Your task to perform on an android device: change alarm snooze length Image 0: 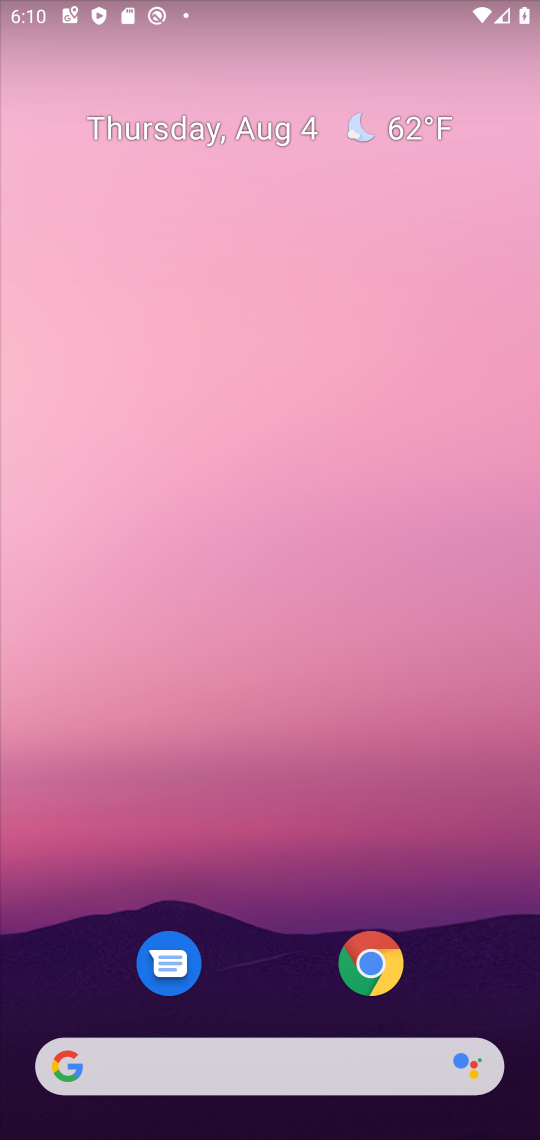
Step 0: drag from (303, 868) to (352, 51)
Your task to perform on an android device: change alarm snooze length Image 1: 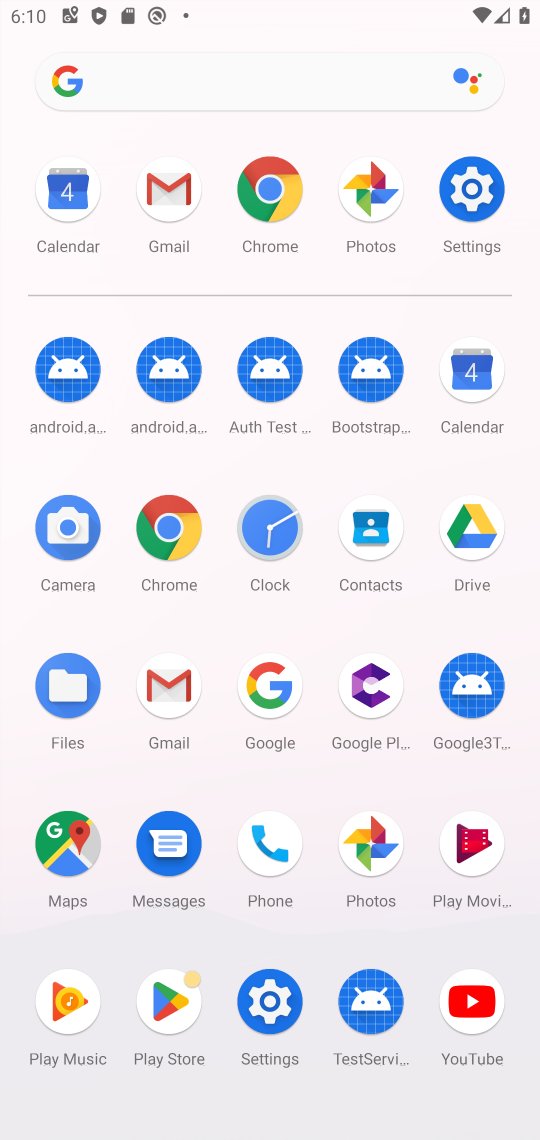
Step 1: click (273, 525)
Your task to perform on an android device: change alarm snooze length Image 2: 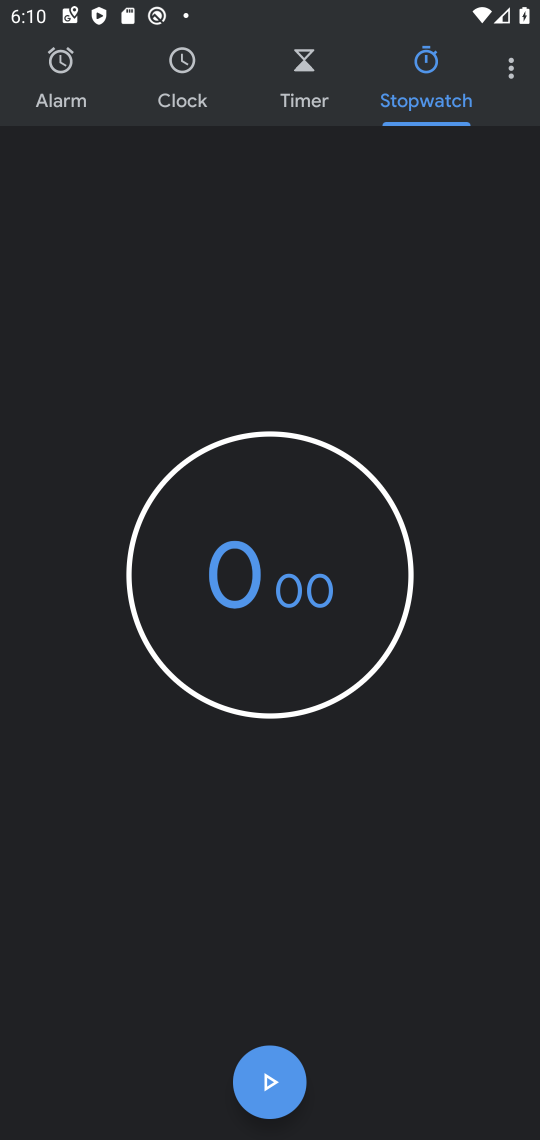
Step 2: click (511, 75)
Your task to perform on an android device: change alarm snooze length Image 3: 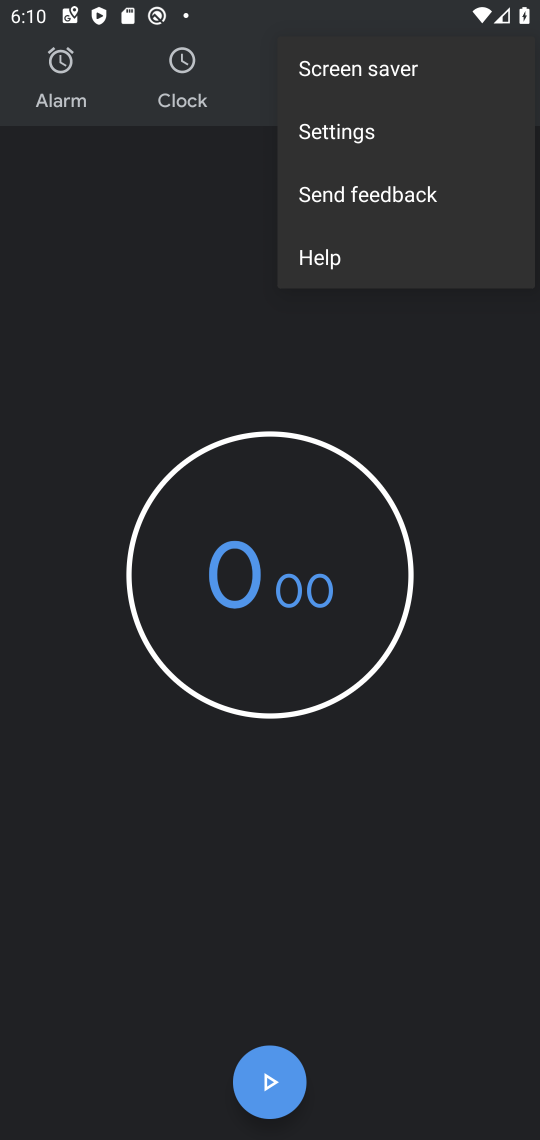
Step 3: click (325, 125)
Your task to perform on an android device: change alarm snooze length Image 4: 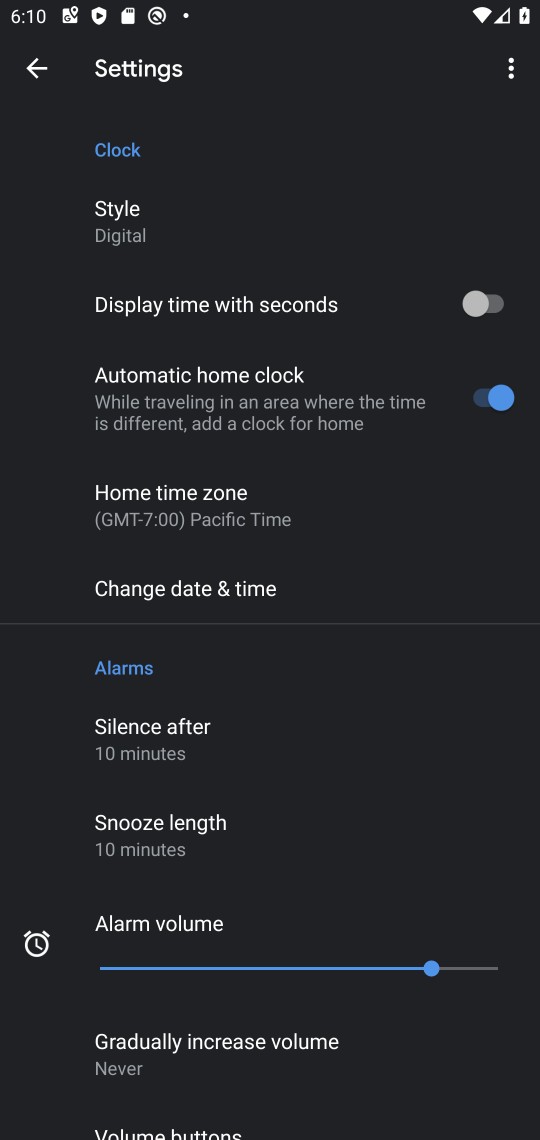
Step 4: click (165, 819)
Your task to perform on an android device: change alarm snooze length Image 5: 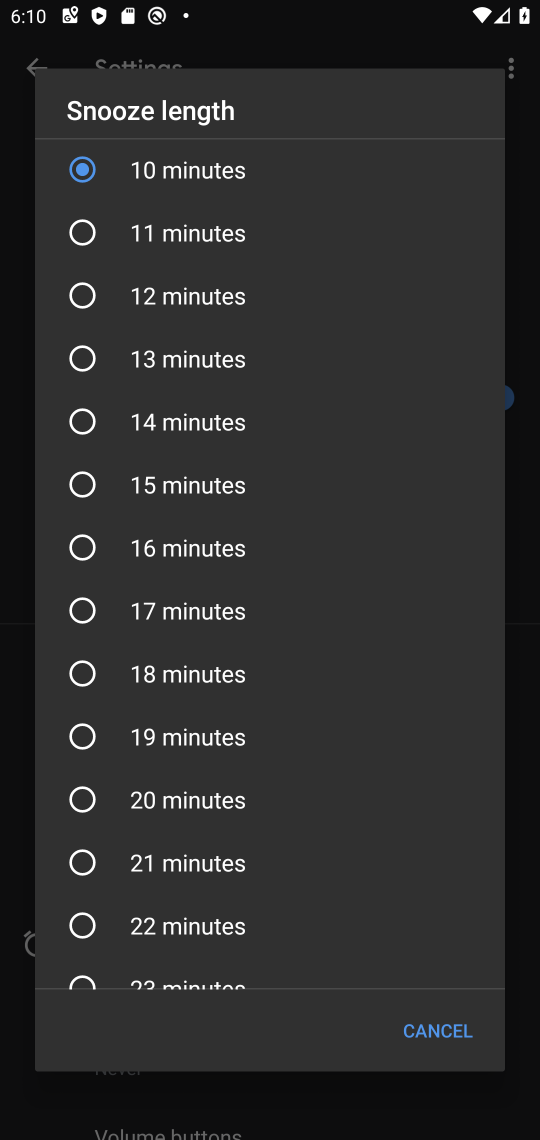
Step 5: click (85, 486)
Your task to perform on an android device: change alarm snooze length Image 6: 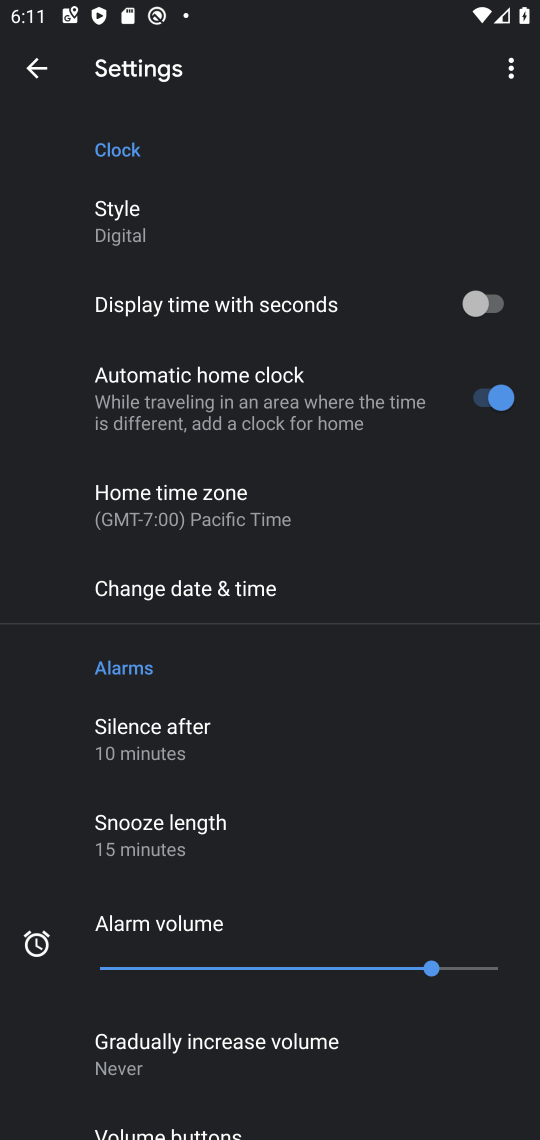
Step 6: task complete